Your task to perform on an android device: turn off wifi Image 0: 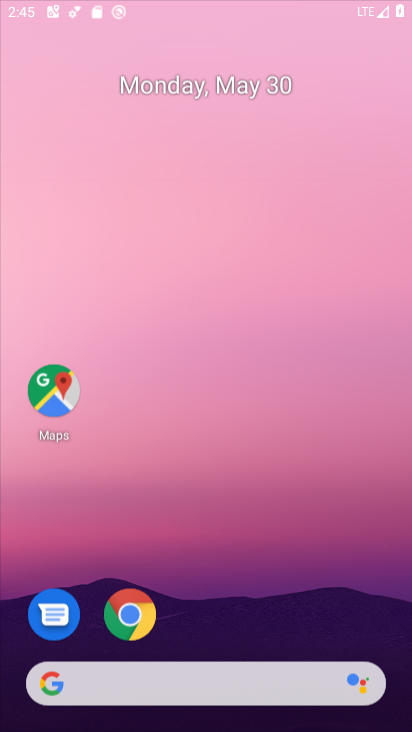
Step 0: drag from (268, 627) to (273, 79)
Your task to perform on an android device: turn off wifi Image 1: 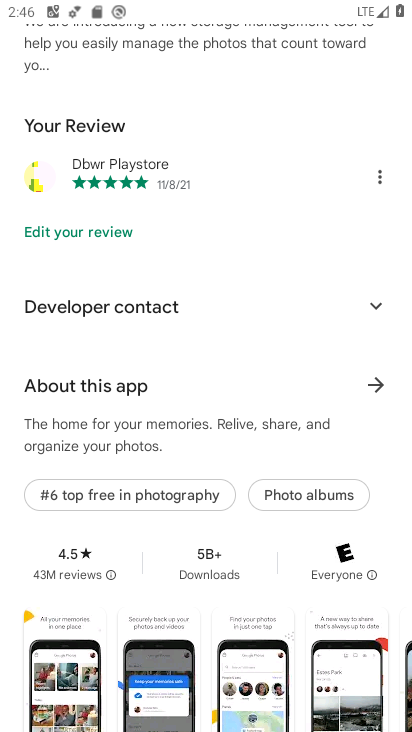
Step 1: press home button
Your task to perform on an android device: turn off wifi Image 2: 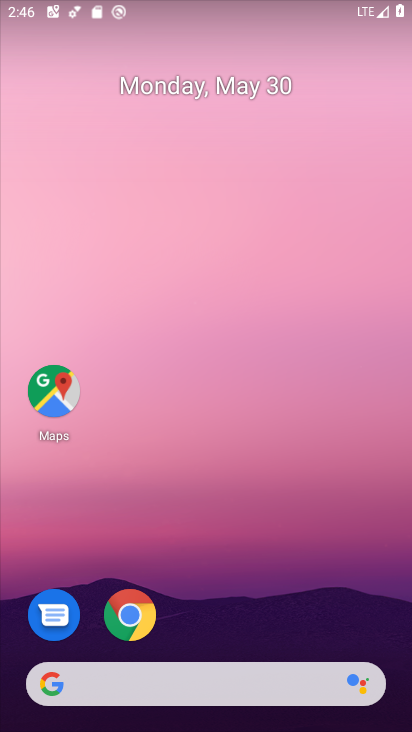
Step 2: drag from (270, 625) to (310, 53)
Your task to perform on an android device: turn off wifi Image 3: 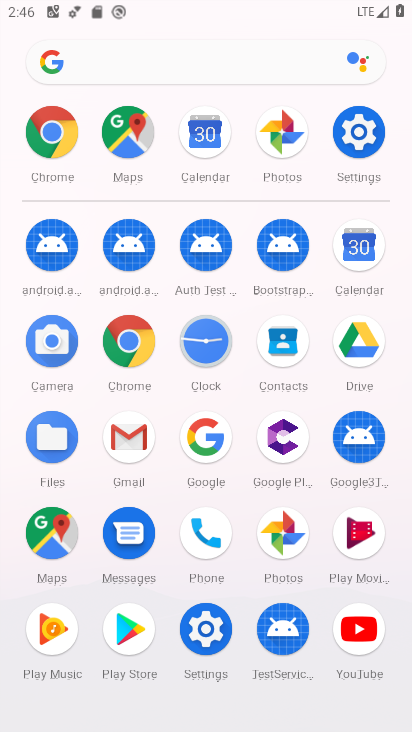
Step 3: click (338, 118)
Your task to perform on an android device: turn off wifi Image 4: 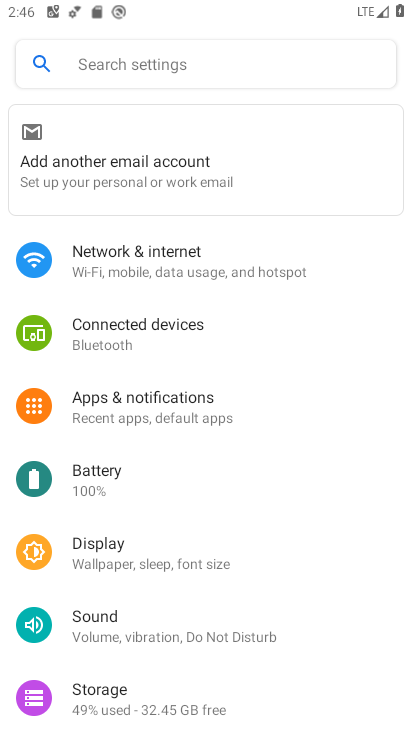
Step 4: click (184, 261)
Your task to perform on an android device: turn off wifi Image 5: 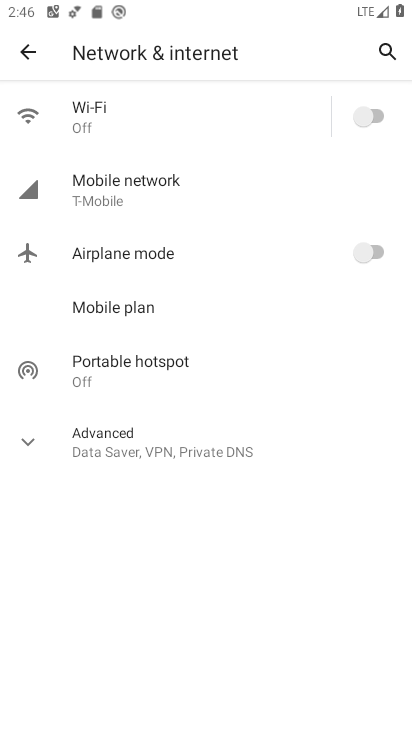
Step 5: task complete